Your task to perform on an android device: Open display settings Image 0: 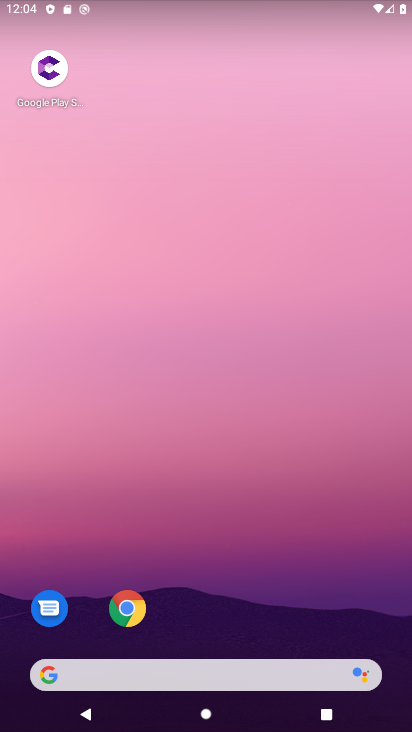
Step 0: drag from (266, 555) to (261, 6)
Your task to perform on an android device: Open display settings Image 1: 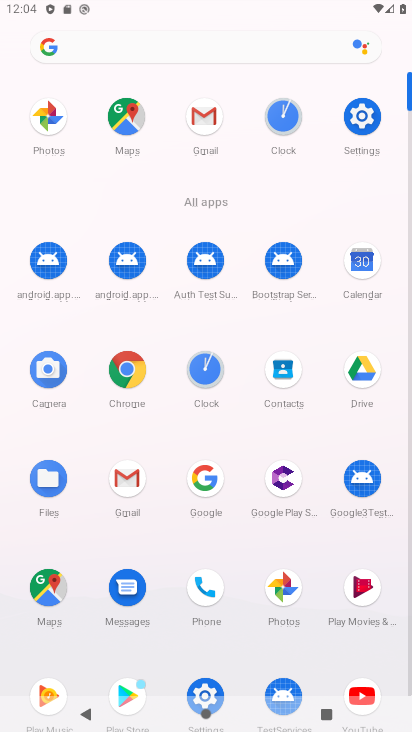
Step 1: click (359, 113)
Your task to perform on an android device: Open display settings Image 2: 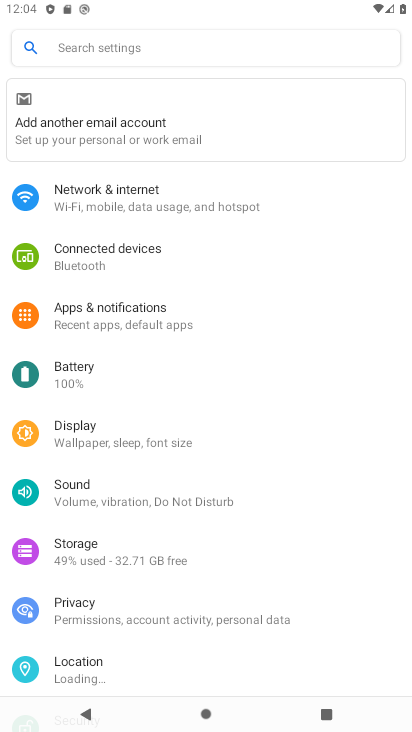
Step 2: click (109, 431)
Your task to perform on an android device: Open display settings Image 3: 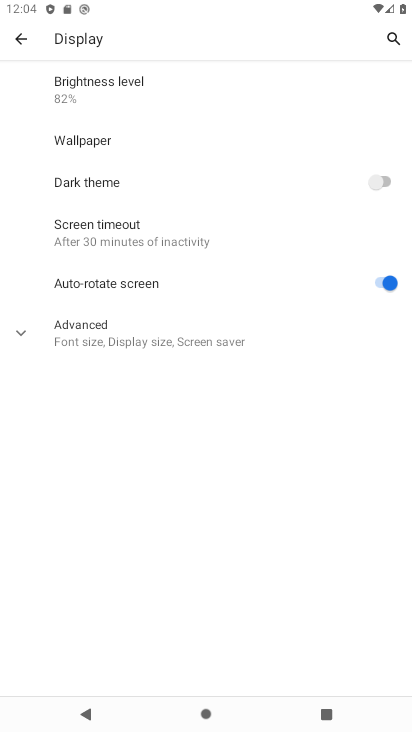
Step 3: task complete